Your task to perform on an android device: delete the emails in spam in the gmail app Image 0: 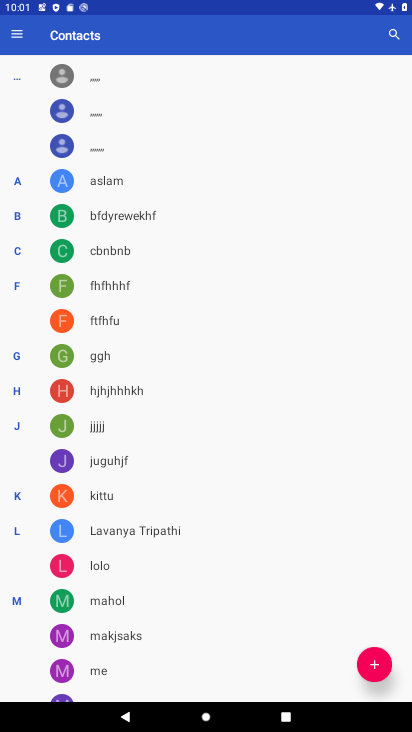
Step 0: task complete